Your task to perform on an android device: turn off notifications settings in the gmail app Image 0: 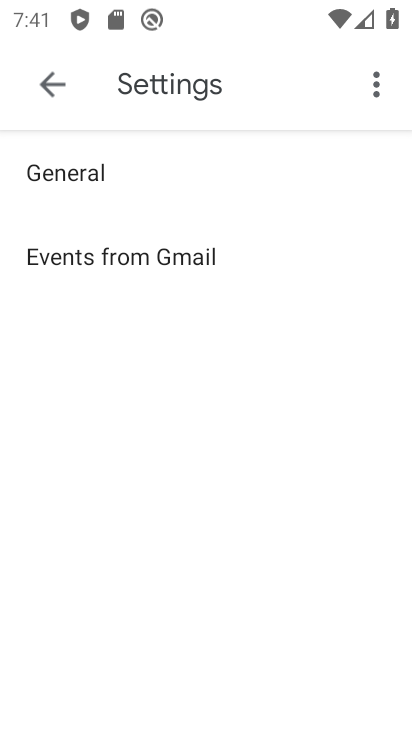
Step 0: press home button
Your task to perform on an android device: turn off notifications settings in the gmail app Image 1: 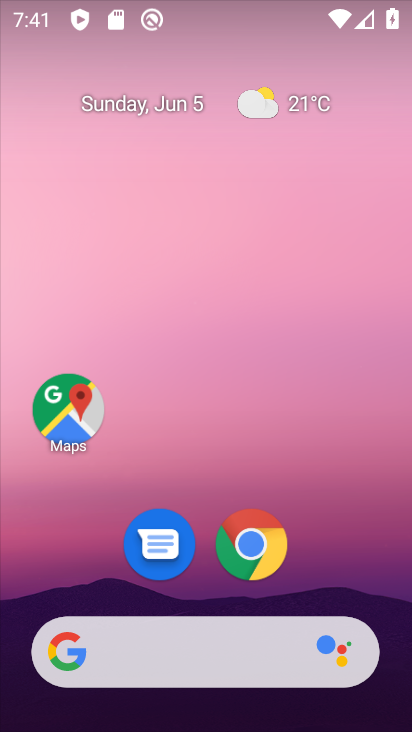
Step 1: drag from (393, 703) to (394, 16)
Your task to perform on an android device: turn off notifications settings in the gmail app Image 2: 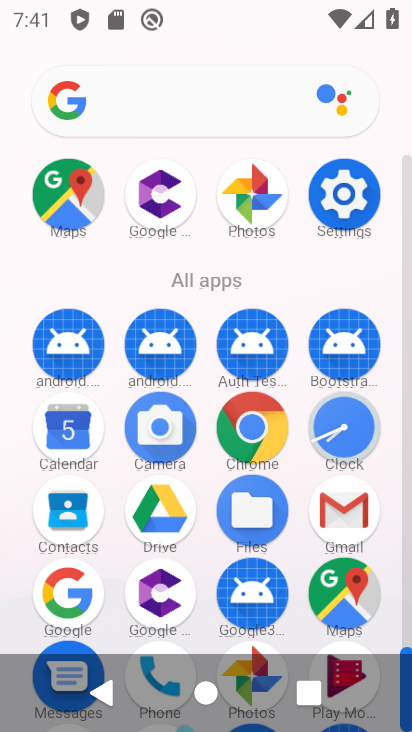
Step 2: click (341, 520)
Your task to perform on an android device: turn off notifications settings in the gmail app Image 3: 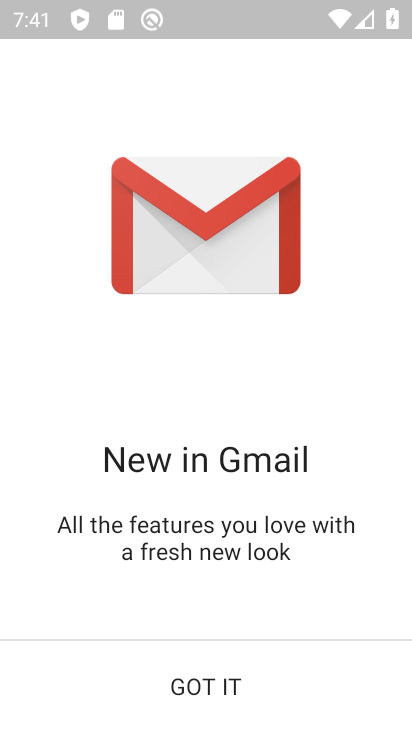
Step 3: click (207, 681)
Your task to perform on an android device: turn off notifications settings in the gmail app Image 4: 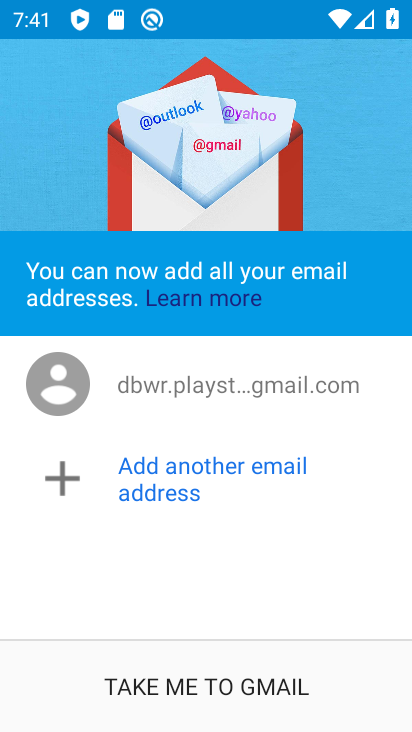
Step 4: click (207, 681)
Your task to perform on an android device: turn off notifications settings in the gmail app Image 5: 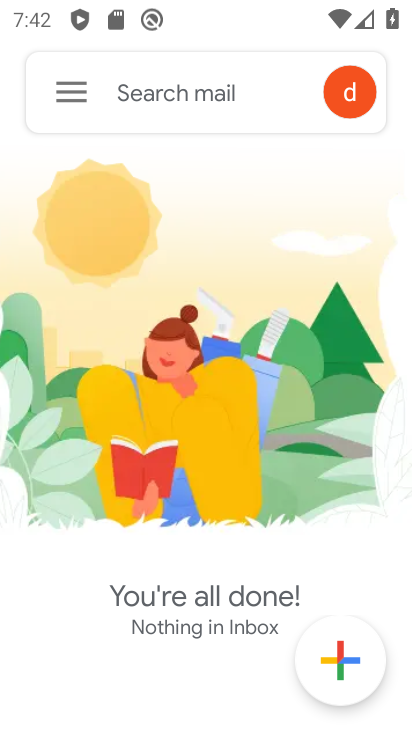
Step 5: click (62, 91)
Your task to perform on an android device: turn off notifications settings in the gmail app Image 6: 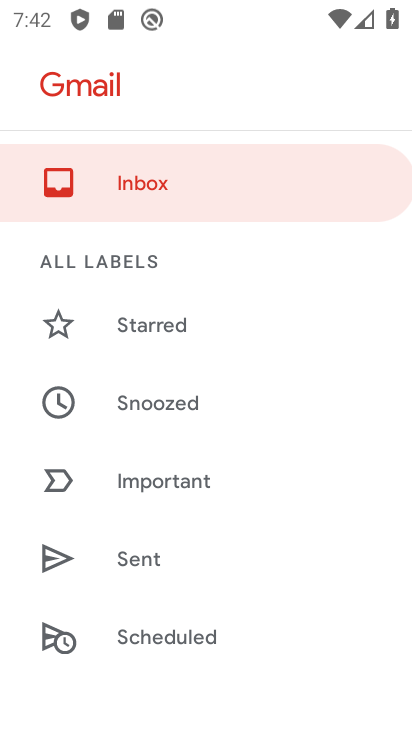
Step 6: drag from (325, 710) to (324, 265)
Your task to perform on an android device: turn off notifications settings in the gmail app Image 7: 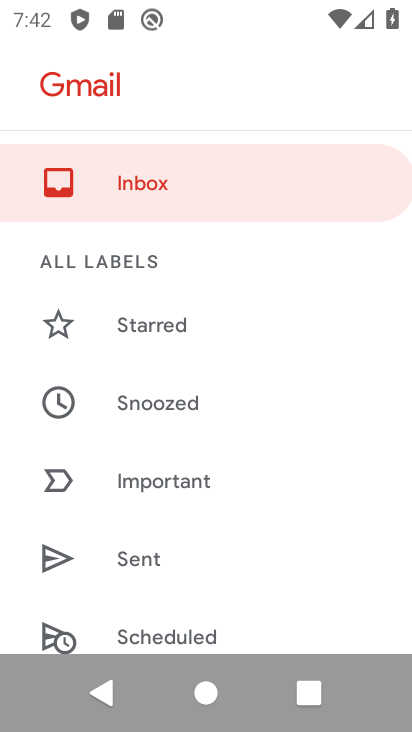
Step 7: drag from (357, 627) to (320, 185)
Your task to perform on an android device: turn off notifications settings in the gmail app Image 8: 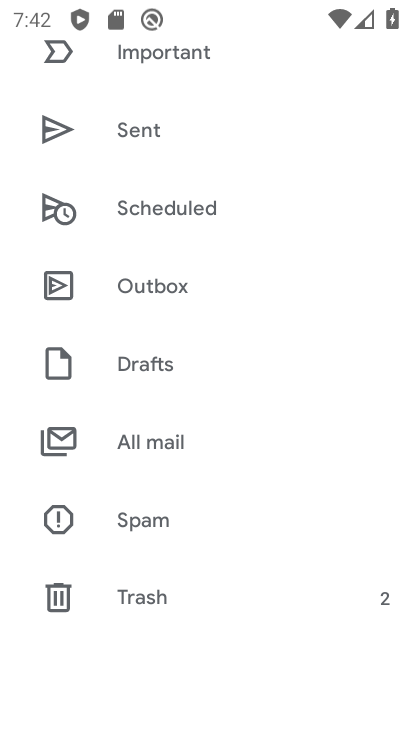
Step 8: drag from (311, 637) to (265, 288)
Your task to perform on an android device: turn off notifications settings in the gmail app Image 9: 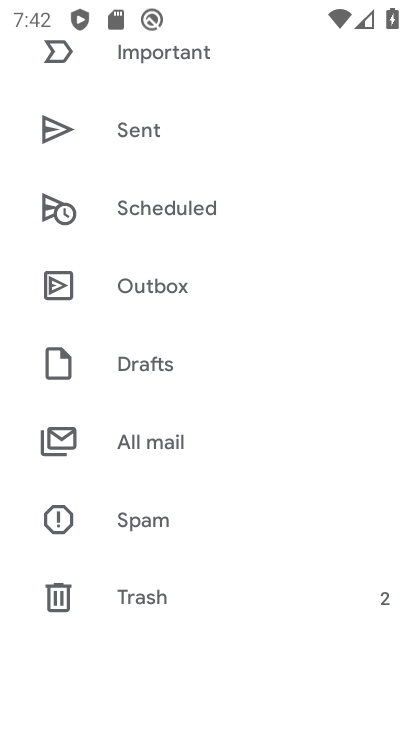
Step 9: drag from (282, 580) to (297, 263)
Your task to perform on an android device: turn off notifications settings in the gmail app Image 10: 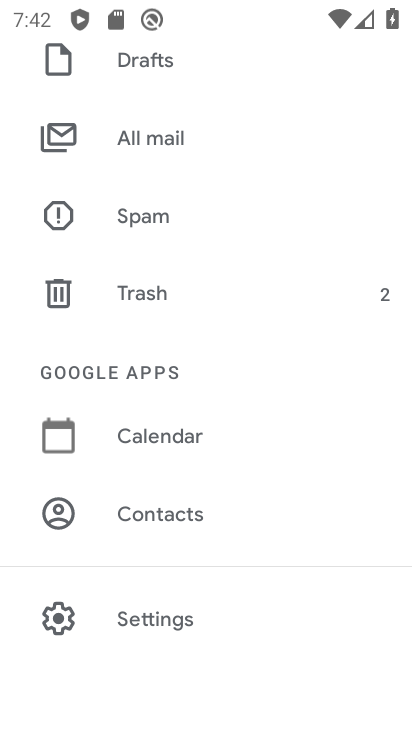
Step 10: click (171, 610)
Your task to perform on an android device: turn off notifications settings in the gmail app Image 11: 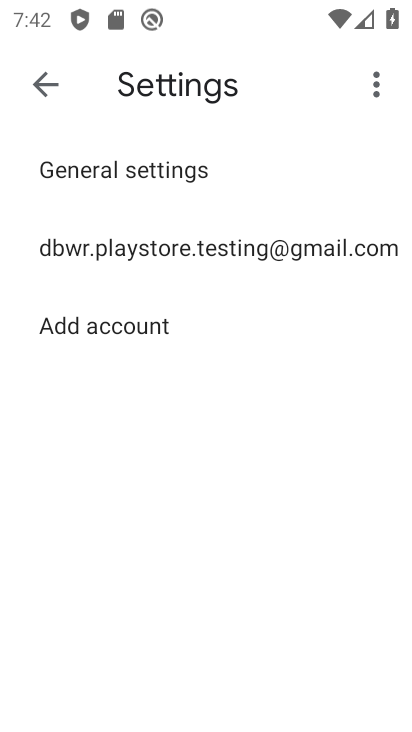
Step 11: click (111, 169)
Your task to perform on an android device: turn off notifications settings in the gmail app Image 12: 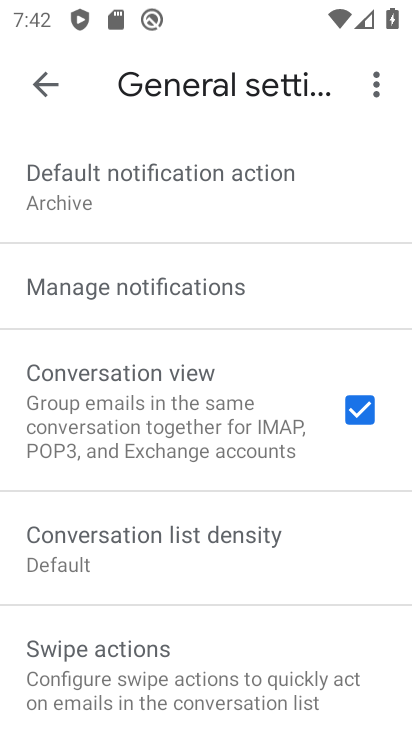
Step 12: click (116, 276)
Your task to perform on an android device: turn off notifications settings in the gmail app Image 13: 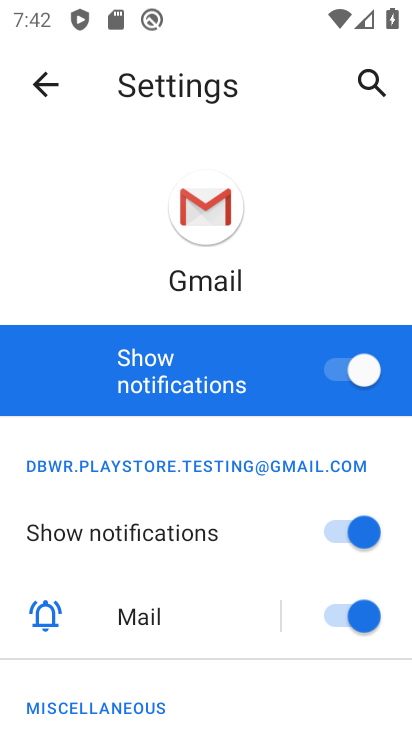
Step 13: click (332, 359)
Your task to perform on an android device: turn off notifications settings in the gmail app Image 14: 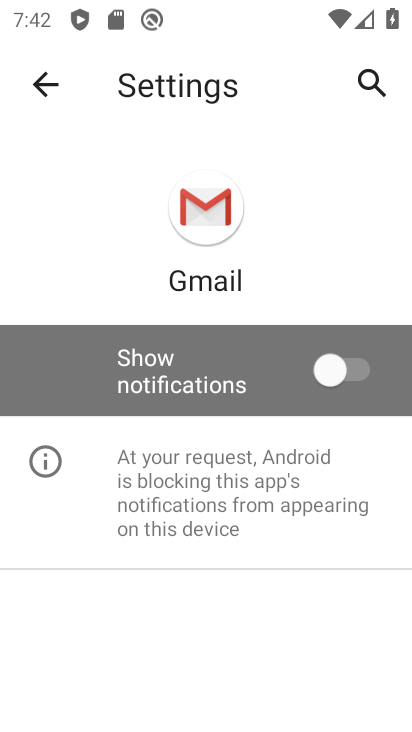
Step 14: task complete